Your task to perform on an android device: Is it going to rain this weekend? Image 0: 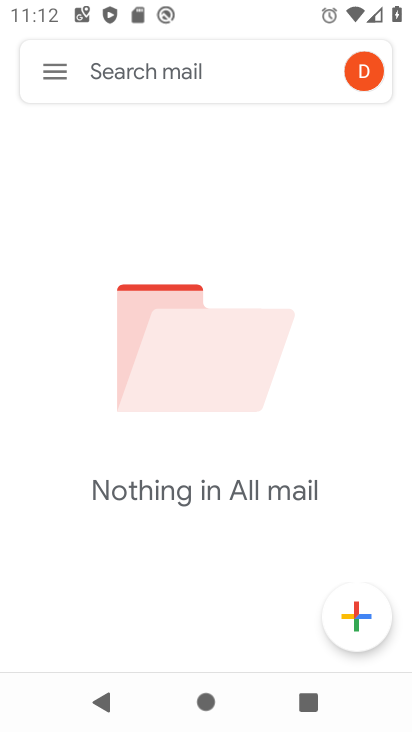
Step 0: press home button
Your task to perform on an android device: Is it going to rain this weekend? Image 1: 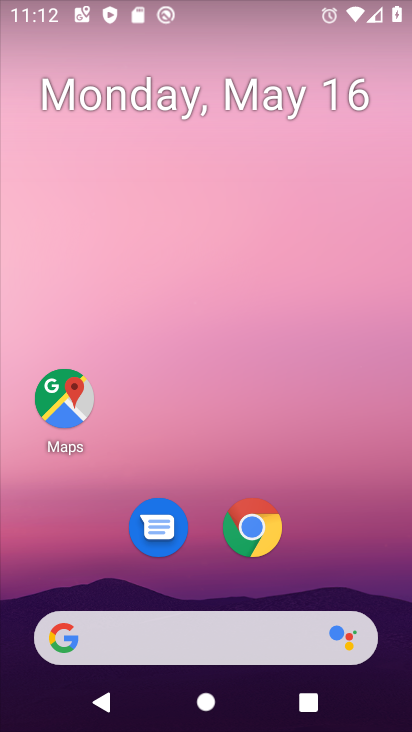
Step 1: click (154, 635)
Your task to perform on an android device: Is it going to rain this weekend? Image 2: 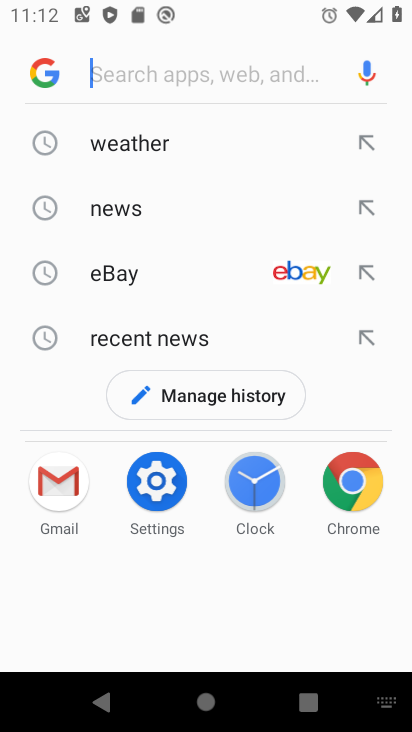
Step 2: click (110, 140)
Your task to perform on an android device: Is it going to rain this weekend? Image 3: 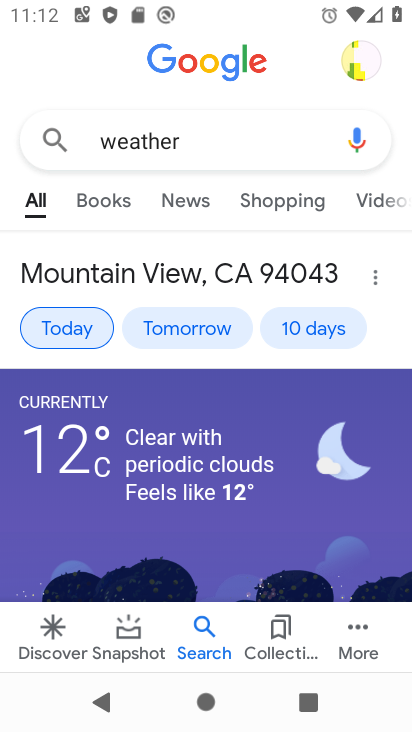
Step 3: click (293, 327)
Your task to perform on an android device: Is it going to rain this weekend? Image 4: 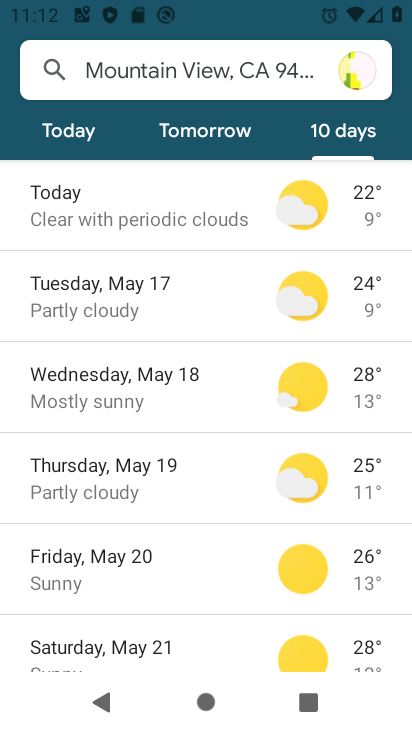
Step 4: task complete